Your task to perform on an android device: Search for pizza restaurants on Maps Image 0: 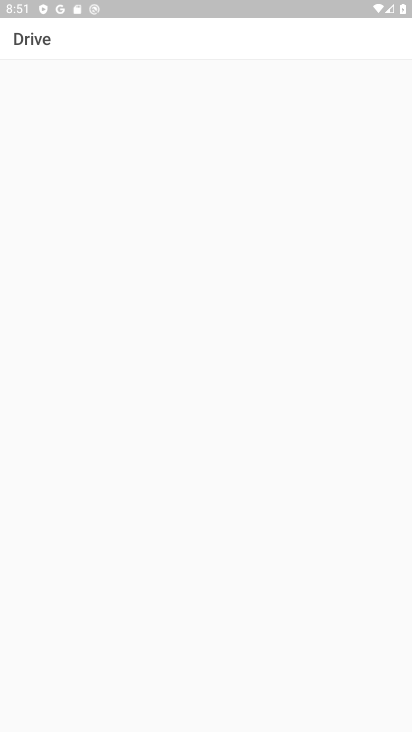
Step 0: press home button
Your task to perform on an android device: Search for pizza restaurants on Maps Image 1: 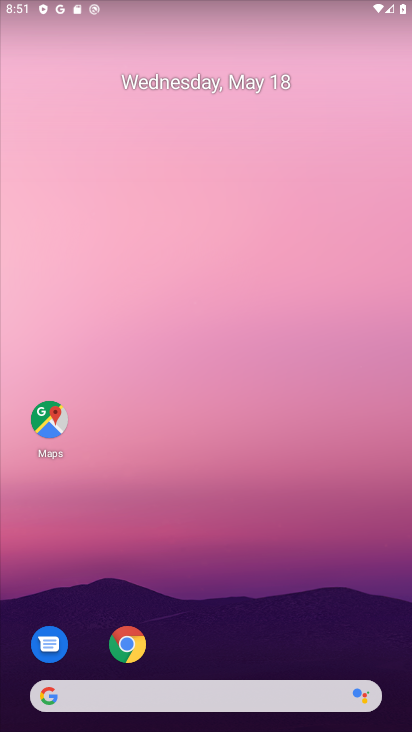
Step 1: click (49, 421)
Your task to perform on an android device: Search for pizza restaurants on Maps Image 2: 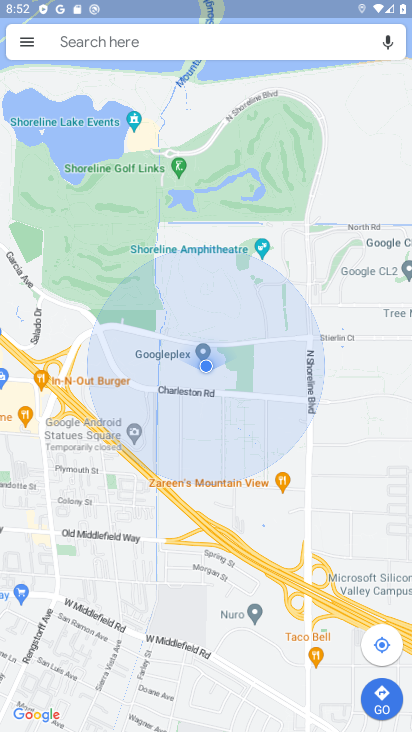
Step 2: click (140, 41)
Your task to perform on an android device: Search for pizza restaurants on Maps Image 3: 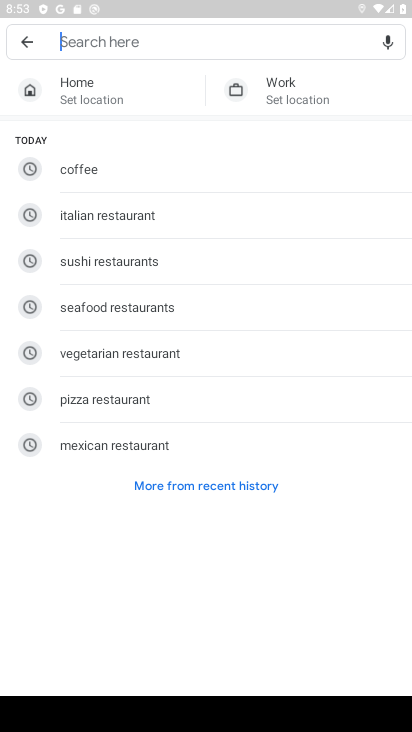
Step 3: type "pizza restaurants"
Your task to perform on an android device: Search for pizza restaurants on Maps Image 4: 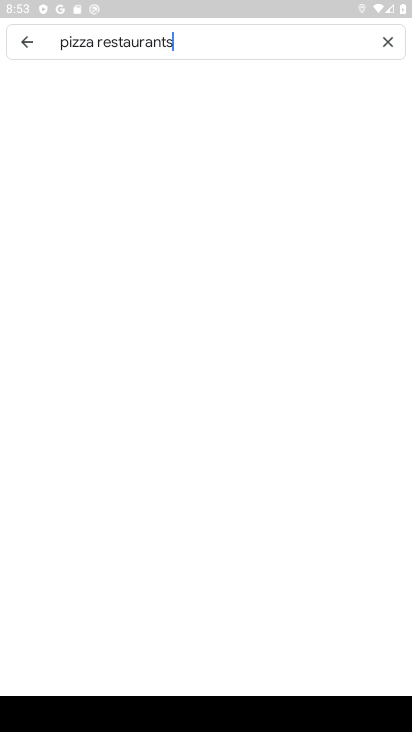
Step 4: type ""
Your task to perform on an android device: Search for pizza restaurants on Maps Image 5: 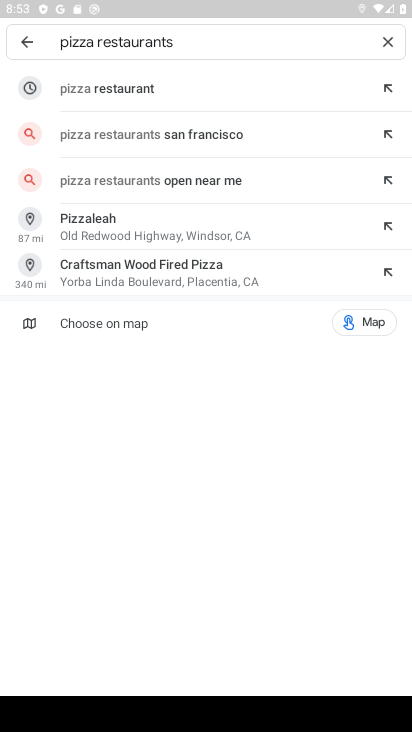
Step 5: click (108, 91)
Your task to perform on an android device: Search for pizza restaurants on Maps Image 6: 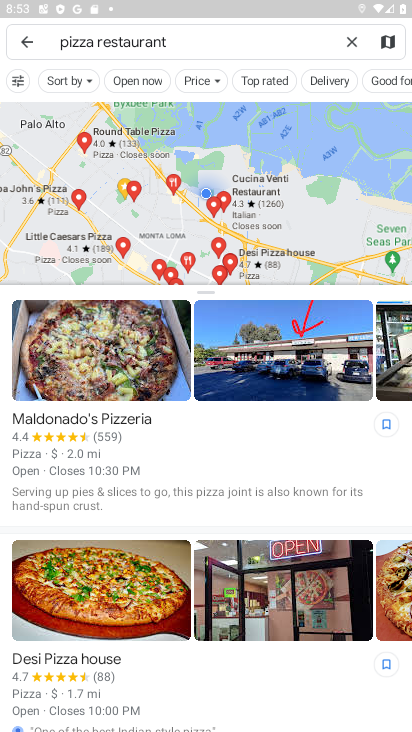
Step 6: task complete